Your task to perform on an android device: Open Wikipedia Image 0: 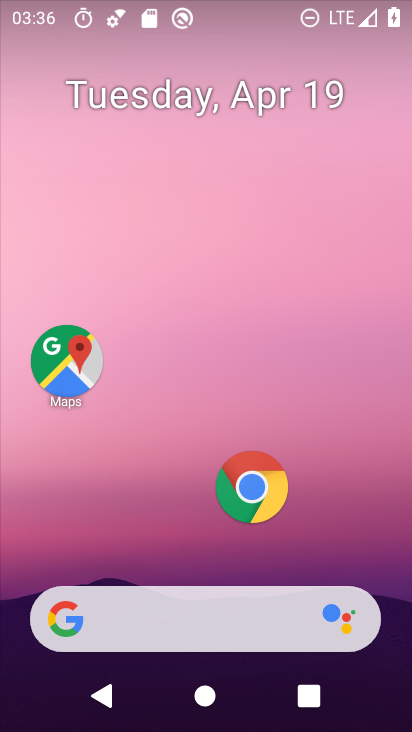
Step 0: click (55, 365)
Your task to perform on an android device: Open Wikipedia Image 1: 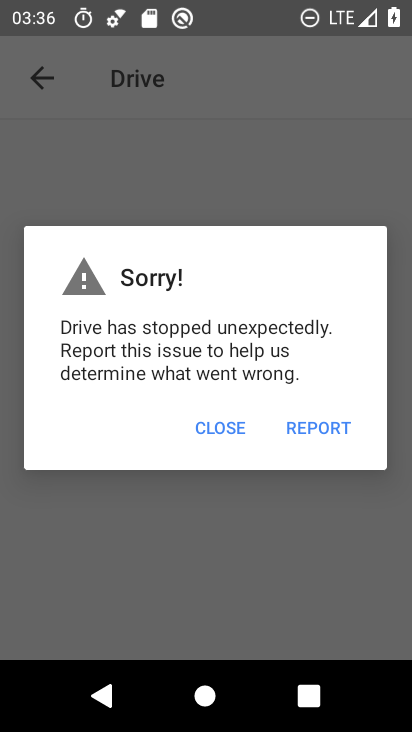
Step 1: click (224, 422)
Your task to perform on an android device: Open Wikipedia Image 2: 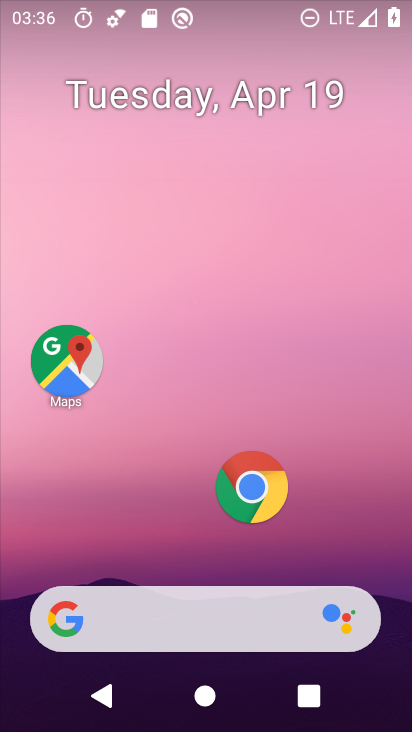
Step 2: click (256, 475)
Your task to perform on an android device: Open Wikipedia Image 3: 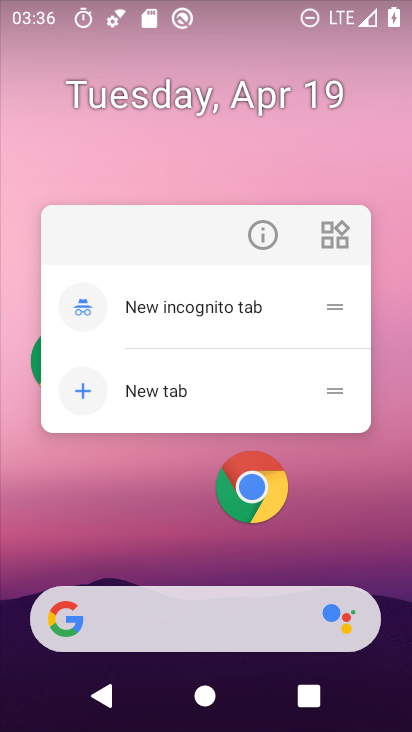
Step 3: click (267, 481)
Your task to perform on an android device: Open Wikipedia Image 4: 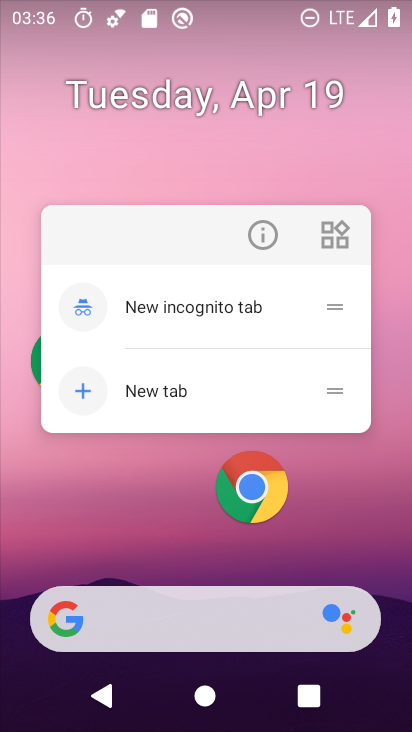
Step 4: click (237, 486)
Your task to perform on an android device: Open Wikipedia Image 5: 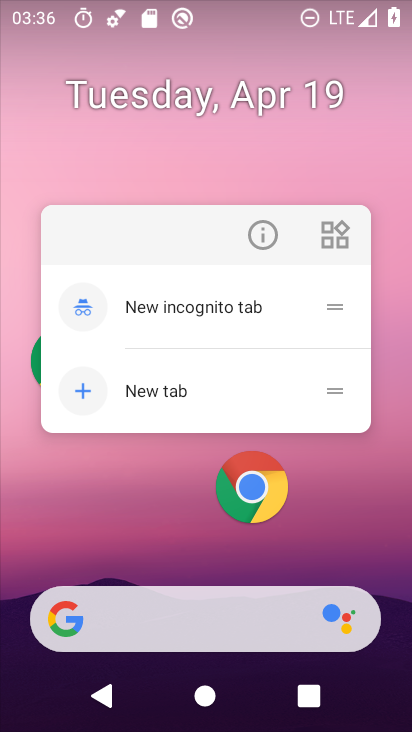
Step 5: click (251, 488)
Your task to perform on an android device: Open Wikipedia Image 6: 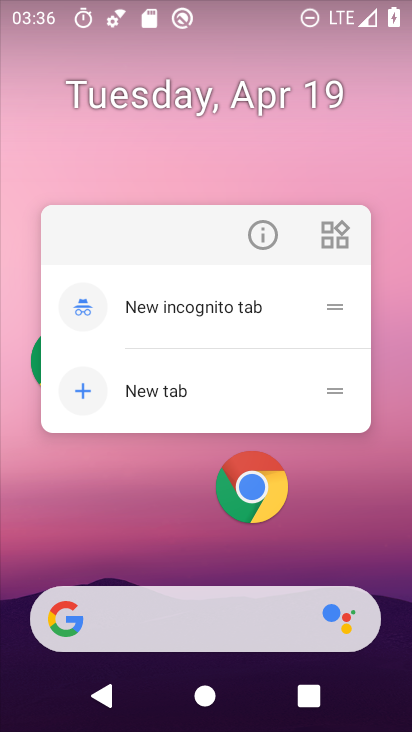
Step 6: click (257, 489)
Your task to perform on an android device: Open Wikipedia Image 7: 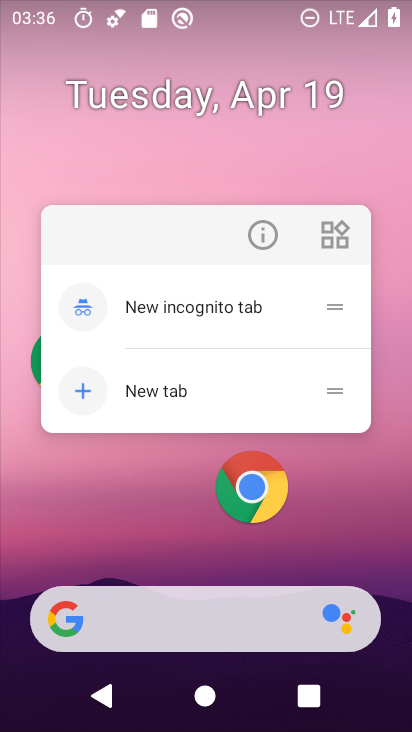
Step 7: click (258, 487)
Your task to perform on an android device: Open Wikipedia Image 8: 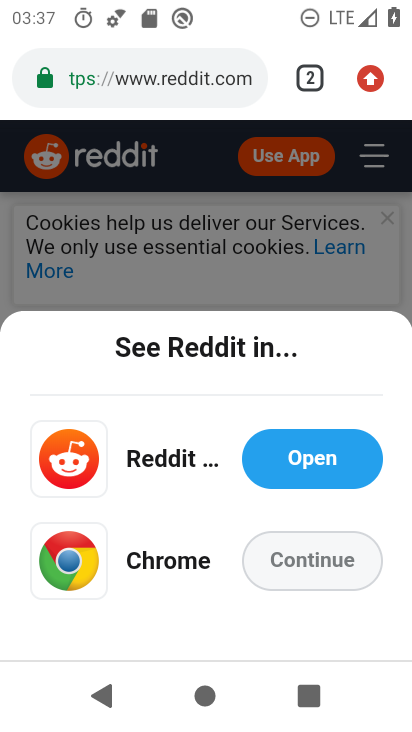
Step 8: click (163, 255)
Your task to perform on an android device: Open Wikipedia Image 9: 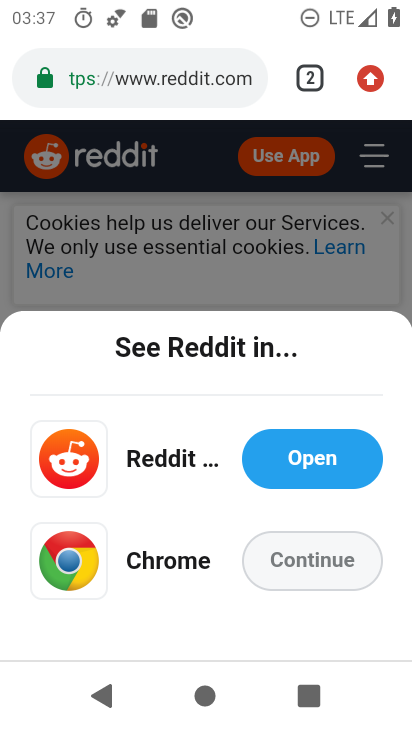
Step 9: click (326, 99)
Your task to perform on an android device: Open Wikipedia Image 10: 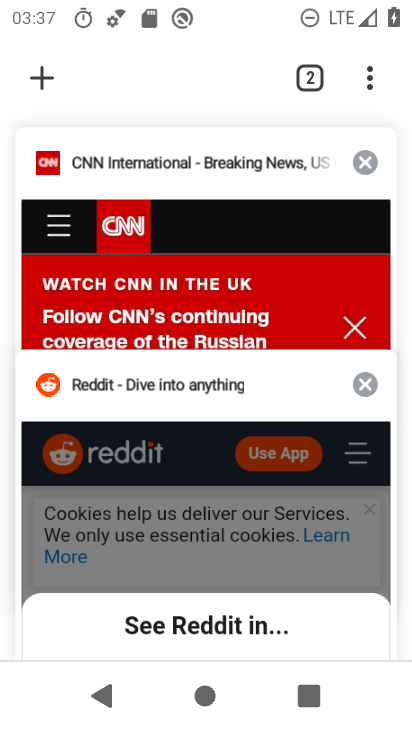
Step 10: click (38, 59)
Your task to perform on an android device: Open Wikipedia Image 11: 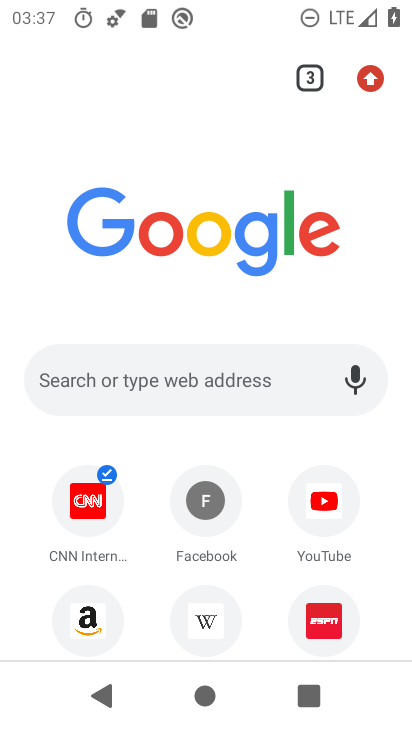
Step 11: click (205, 608)
Your task to perform on an android device: Open Wikipedia Image 12: 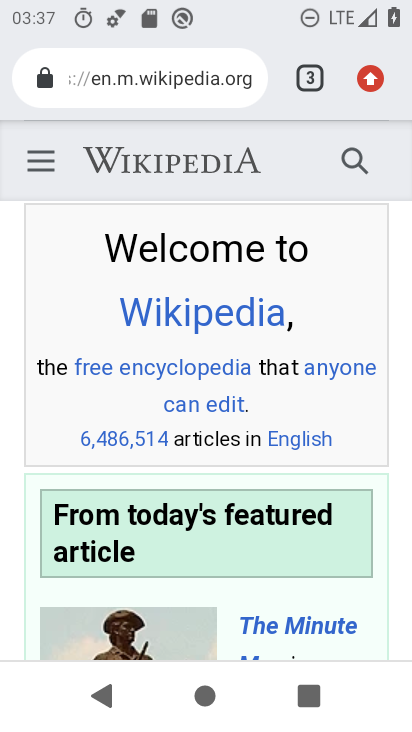
Step 12: task complete